Your task to perform on an android device: Open sound settings Image 0: 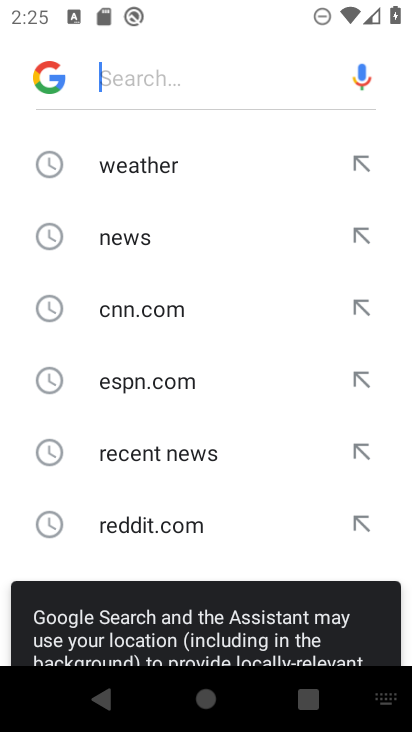
Step 0: press home button
Your task to perform on an android device: Open sound settings Image 1: 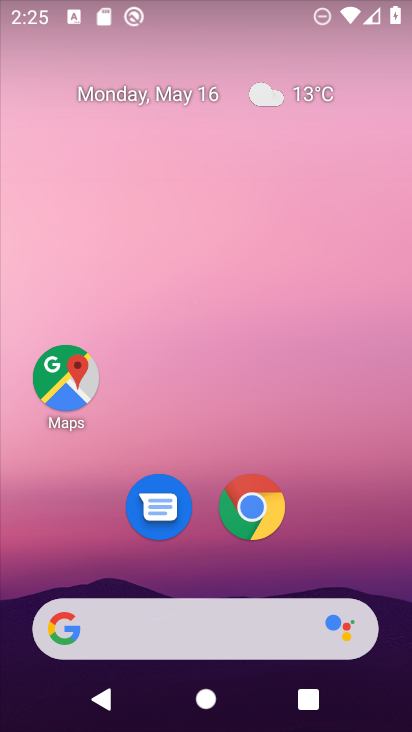
Step 1: drag from (227, 597) to (244, 208)
Your task to perform on an android device: Open sound settings Image 2: 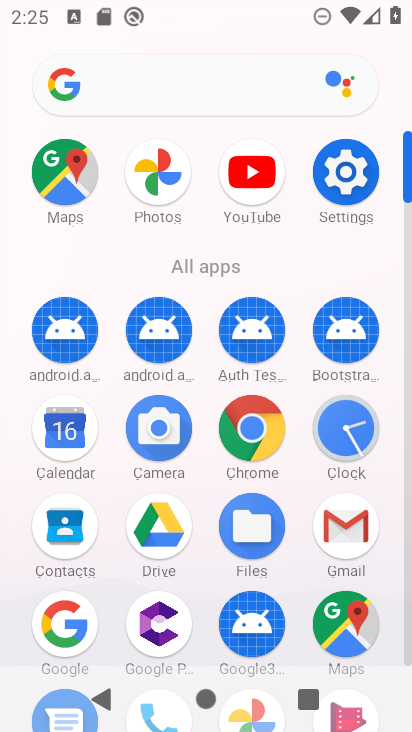
Step 2: click (361, 196)
Your task to perform on an android device: Open sound settings Image 3: 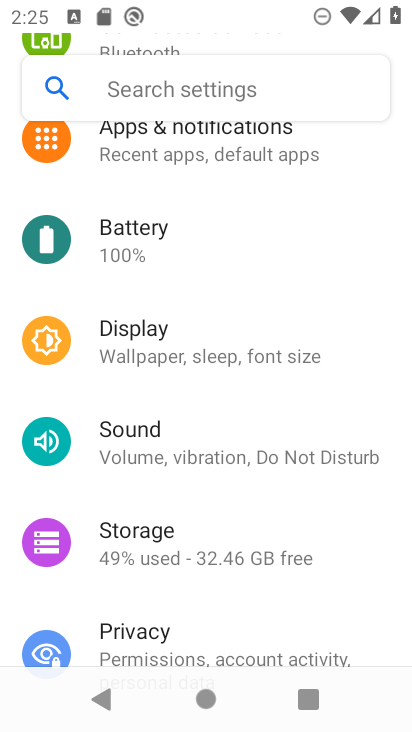
Step 3: click (194, 441)
Your task to perform on an android device: Open sound settings Image 4: 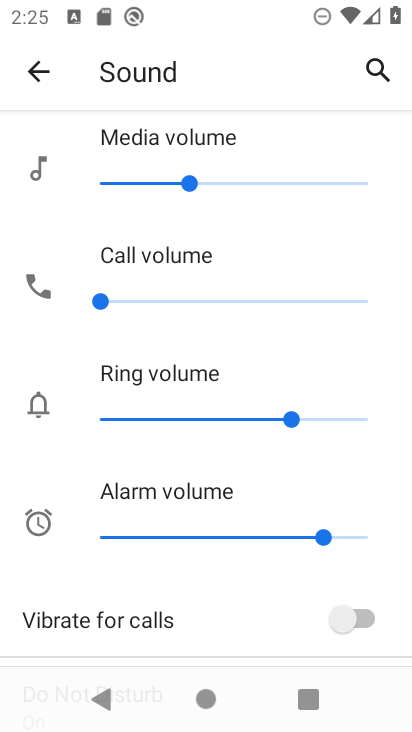
Step 4: task complete